Your task to perform on an android device: toggle wifi Image 0: 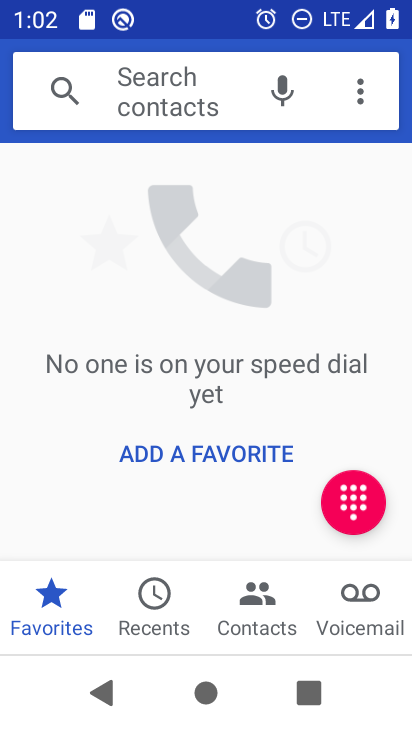
Step 0: press home button
Your task to perform on an android device: toggle wifi Image 1: 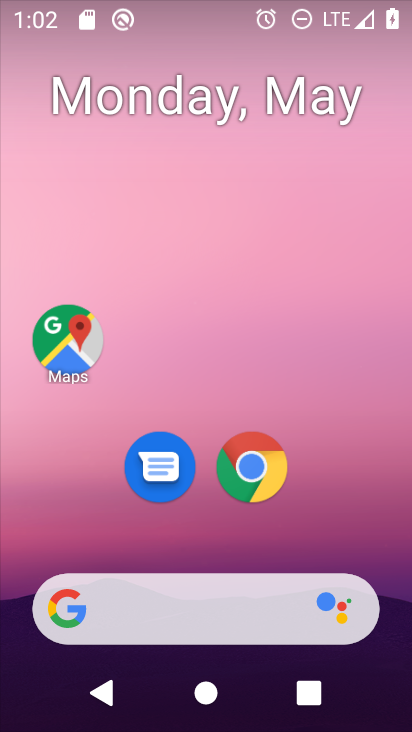
Step 1: drag from (365, 560) to (361, 34)
Your task to perform on an android device: toggle wifi Image 2: 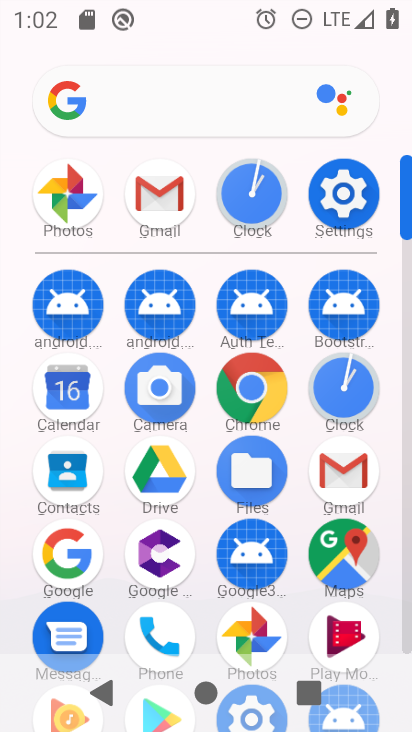
Step 2: click (337, 188)
Your task to perform on an android device: toggle wifi Image 3: 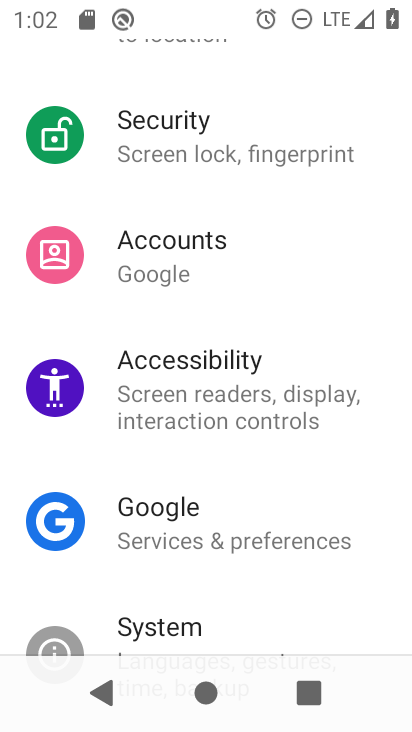
Step 3: drag from (348, 135) to (327, 615)
Your task to perform on an android device: toggle wifi Image 4: 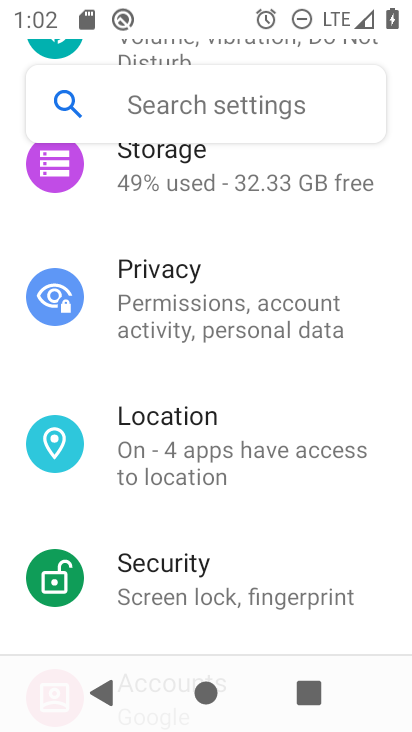
Step 4: drag from (277, 255) to (284, 588)
Your task to perform on an android device: toggle wifi Image 5: 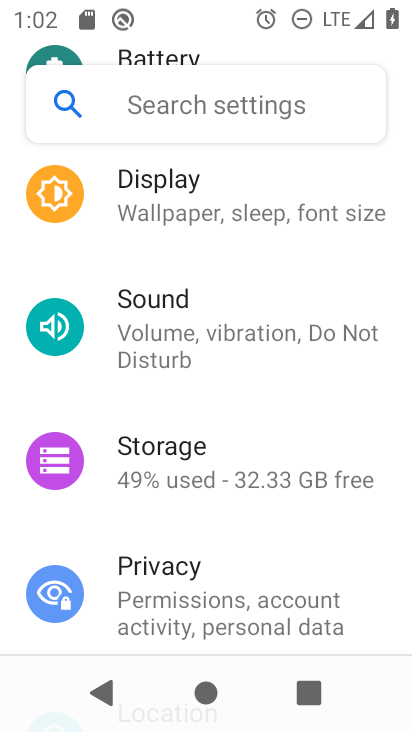
Step 5: drag from (324, 252) to (316, 587)
Your task to perform on an android device: toggle wifi Image 6: 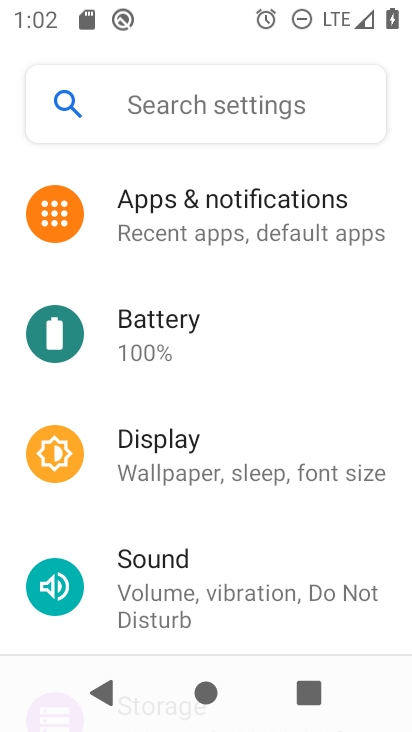
Step 6: drag from (272, 228) to (279, 545)
Your task to perform on an android device: toggle wifi Image 7: 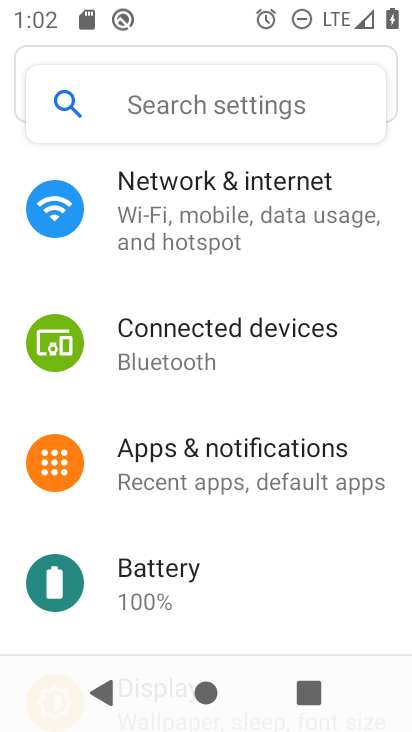
Step 7: click (189, 224)
Your task to perform on an android device: toggle wifi Image 8: 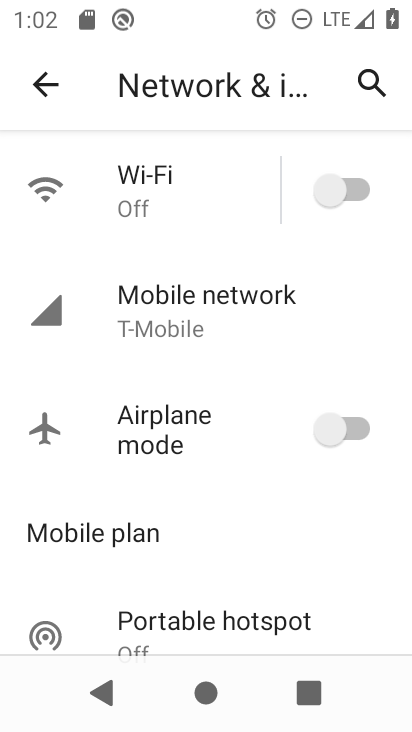
Step 8: click (319, 195)
Your task to perform on an android device: toggle wifi Image 9: 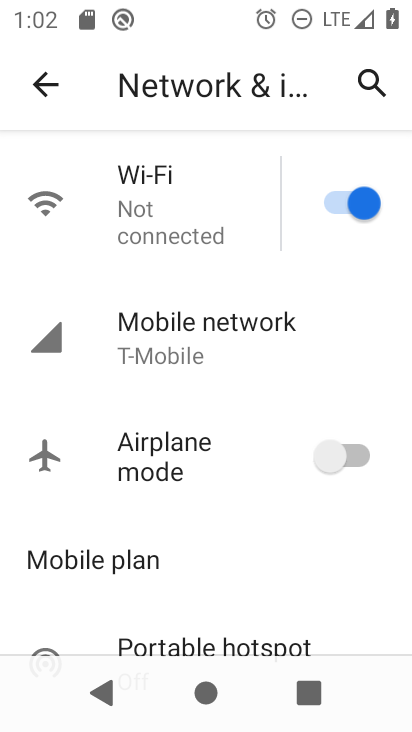
Step 9: task complete